Your task to perform on an android device: Open notification settings Image 0: 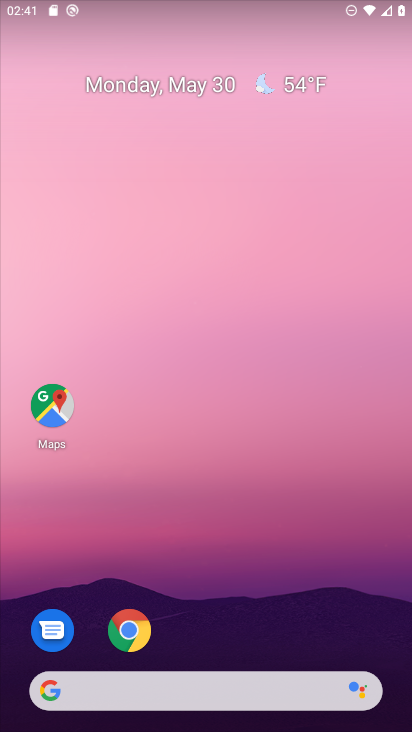
Step 0: press home button
Your task to perform on an android device: Open notification settings Image 1: 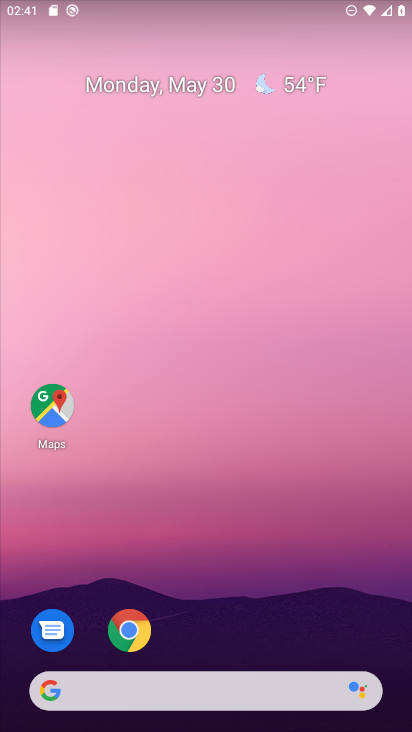
Step 1: drag from (195, 690) to (291, 201)
Your task to perform on an android device: Open notification settings Image 2: 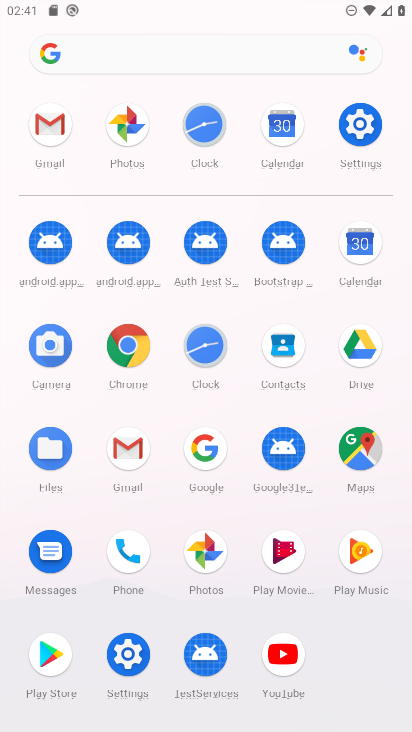
Step 2: click (357, 137)
Your task to perform on an android device: Open notification settings Image 3: 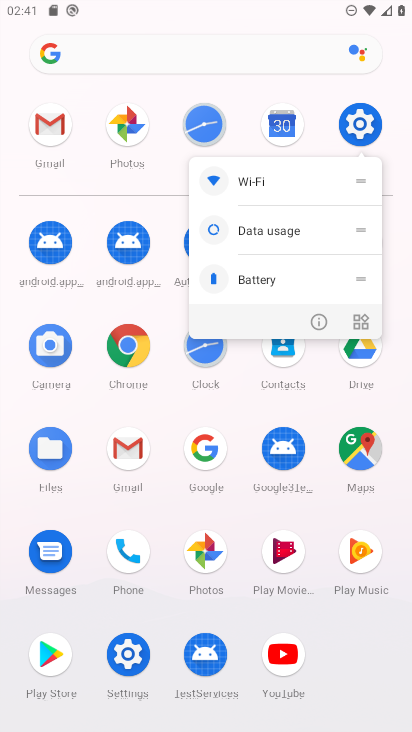
Step 3: click (357, 132)
Your task to perform on an android device: Open notification settings Image 4: 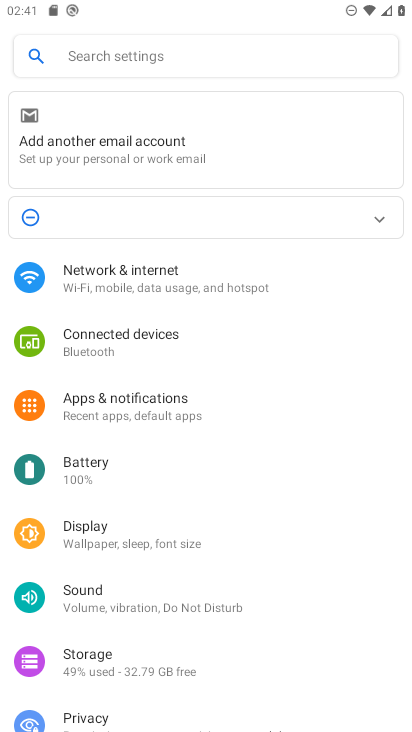
Step 4: click (128, 406)
Your task to perform on an android device: Open notification settings Image 5: 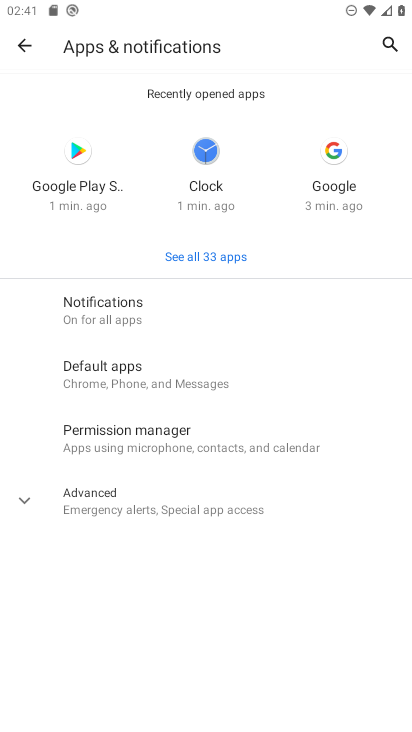
Step 5: click (106, 306)
Your task to perform on an android device: Open notification settings Image 6: 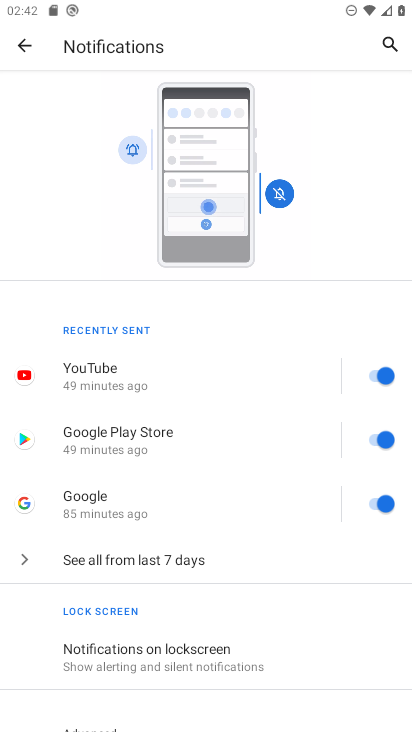
Step 6: task complete